Your task to perform on an android device: toggle translation in the chrome app Image 0: 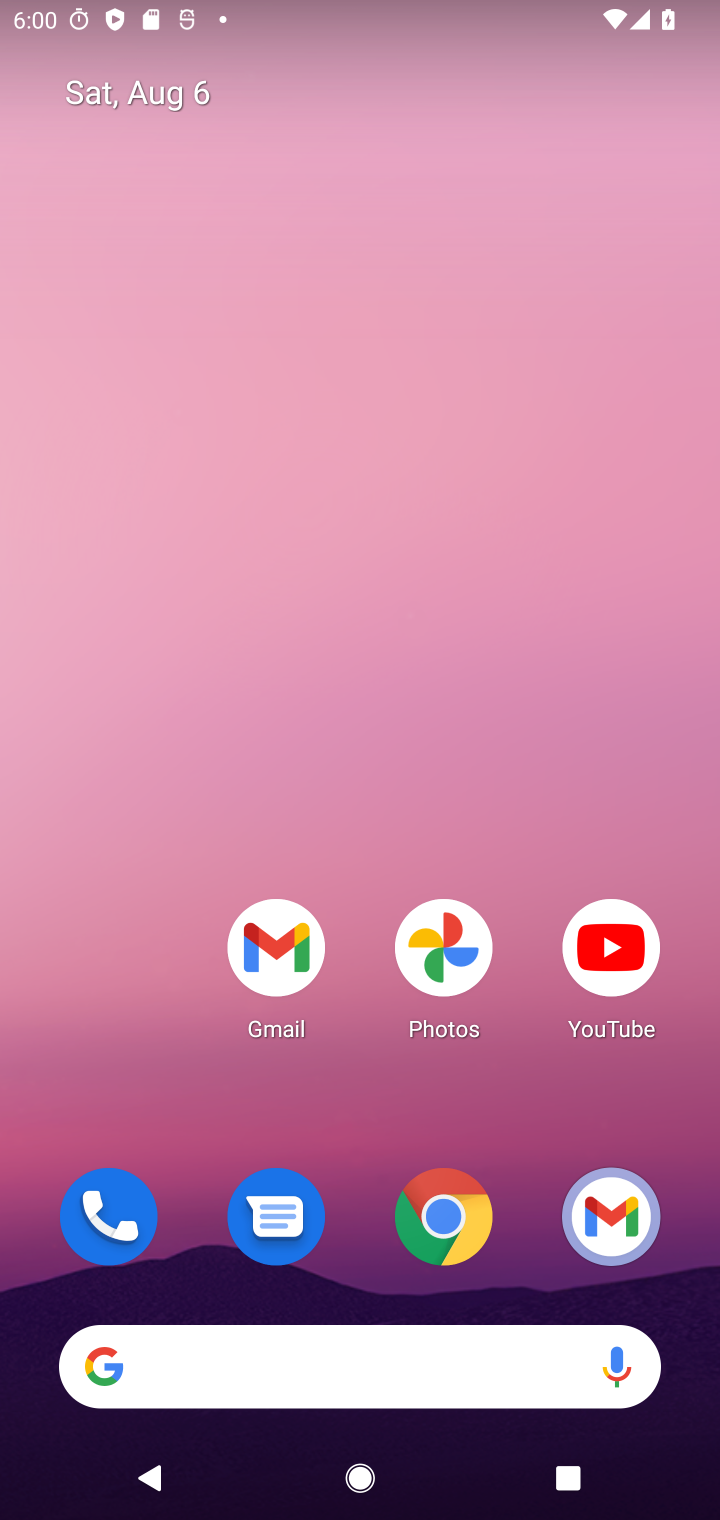
Step 0: drag from (538, 1129) to (495, 10)
Your task to perform on an android device: toggle translation in the chrome app Image 1: 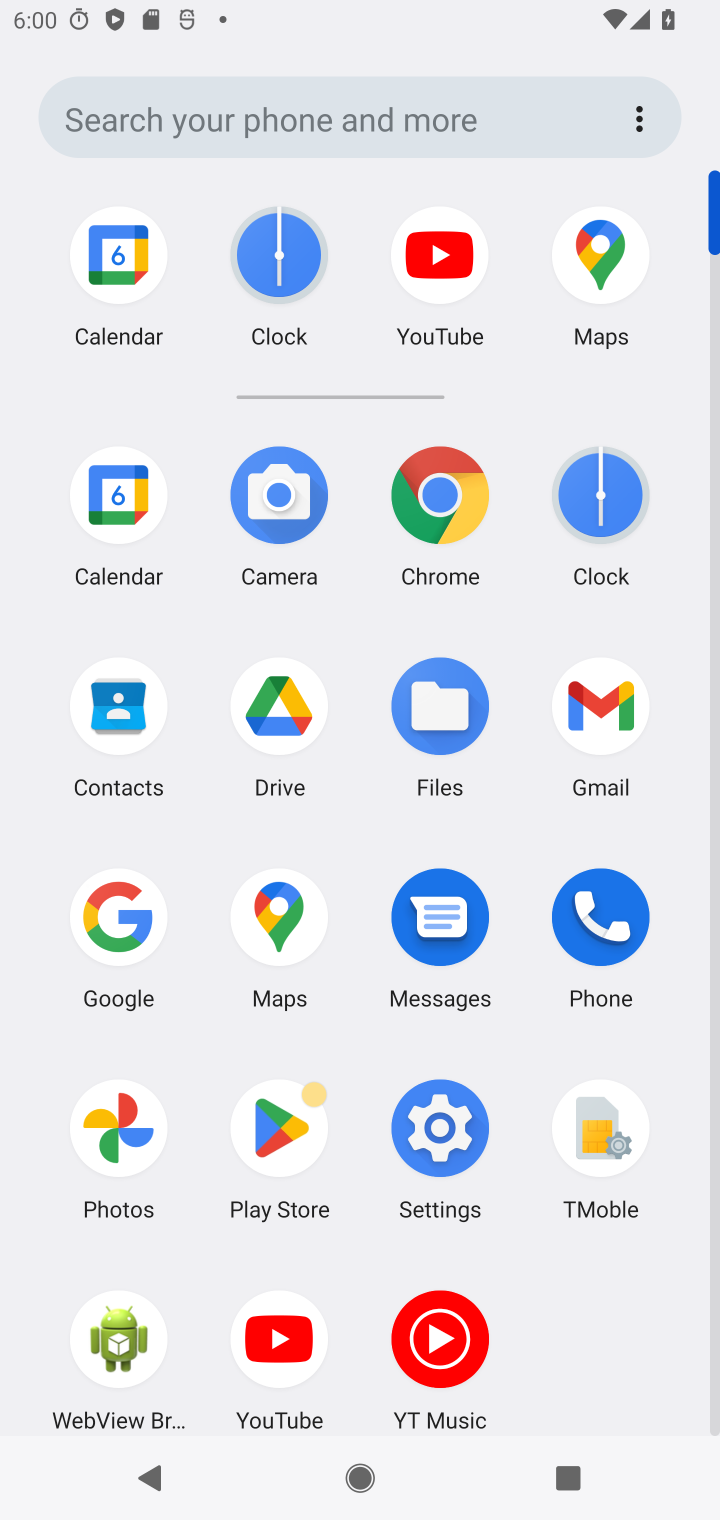
Step 1: click (434, 498)
Your task to perform on an android device: toggle translation in the chrome app Image 2: 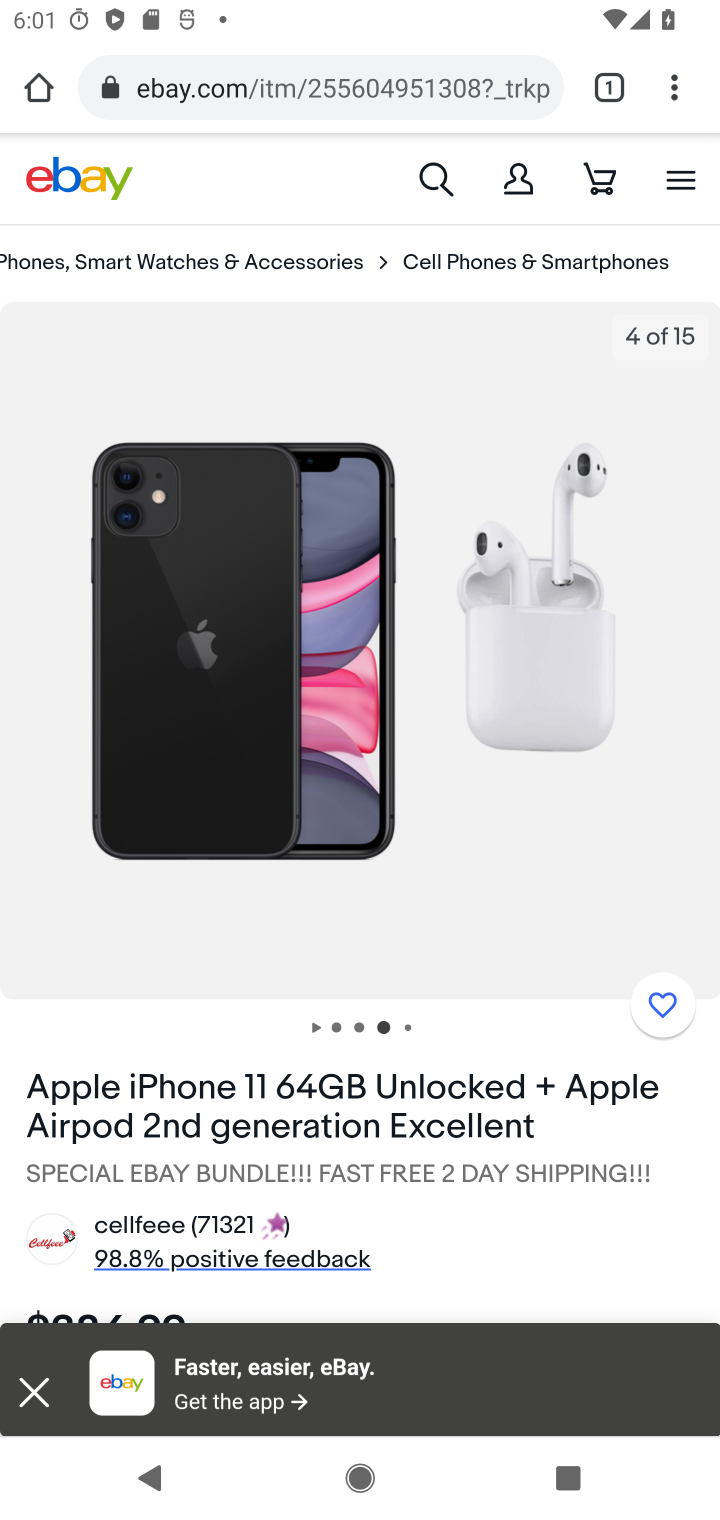
Step 2: drag from (685, 71) to (432, 1096)
Your task to perform on an android device: toggle translation in the chrome app Image 3: 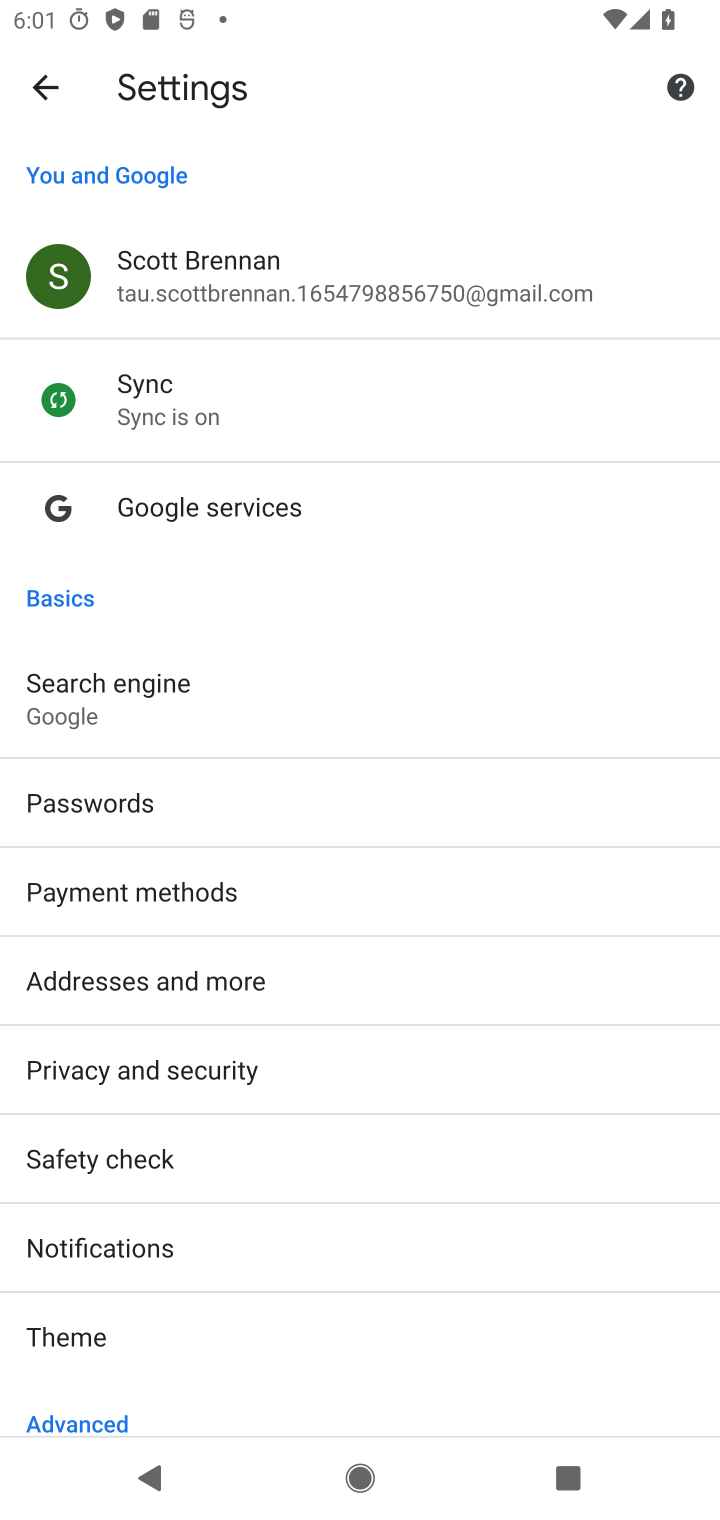
Step 3: drag from (499, 1105) to (523, 457)
Your task to perform on an android device: toggle translation in the chrome app Image 4: 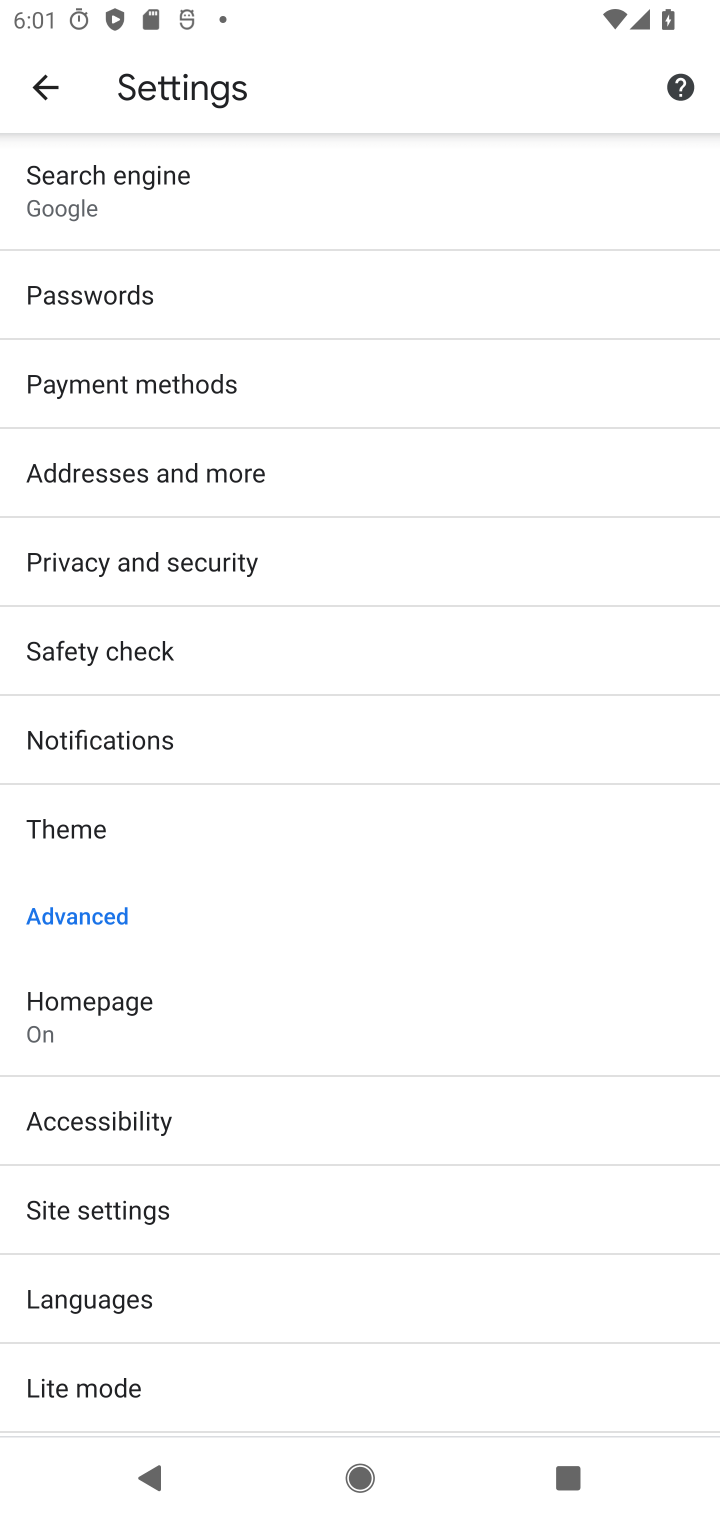
Step 4: click (110, 1299)
Your task to perform on an android device: toggle translation in the chrome app Image 5: 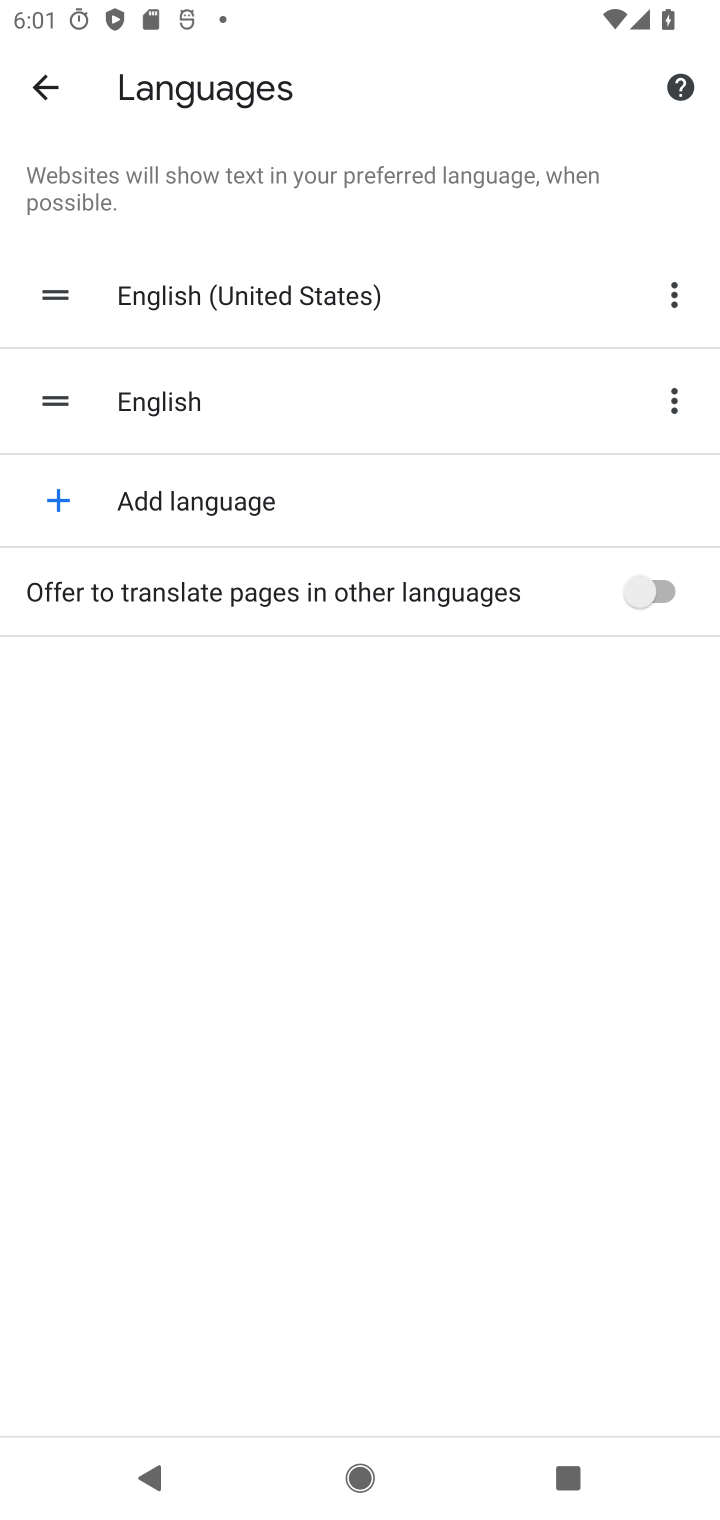
Step 5: click (660, 580)
Your task to perform on an android device: toggle translation in the chrome app Image 6: 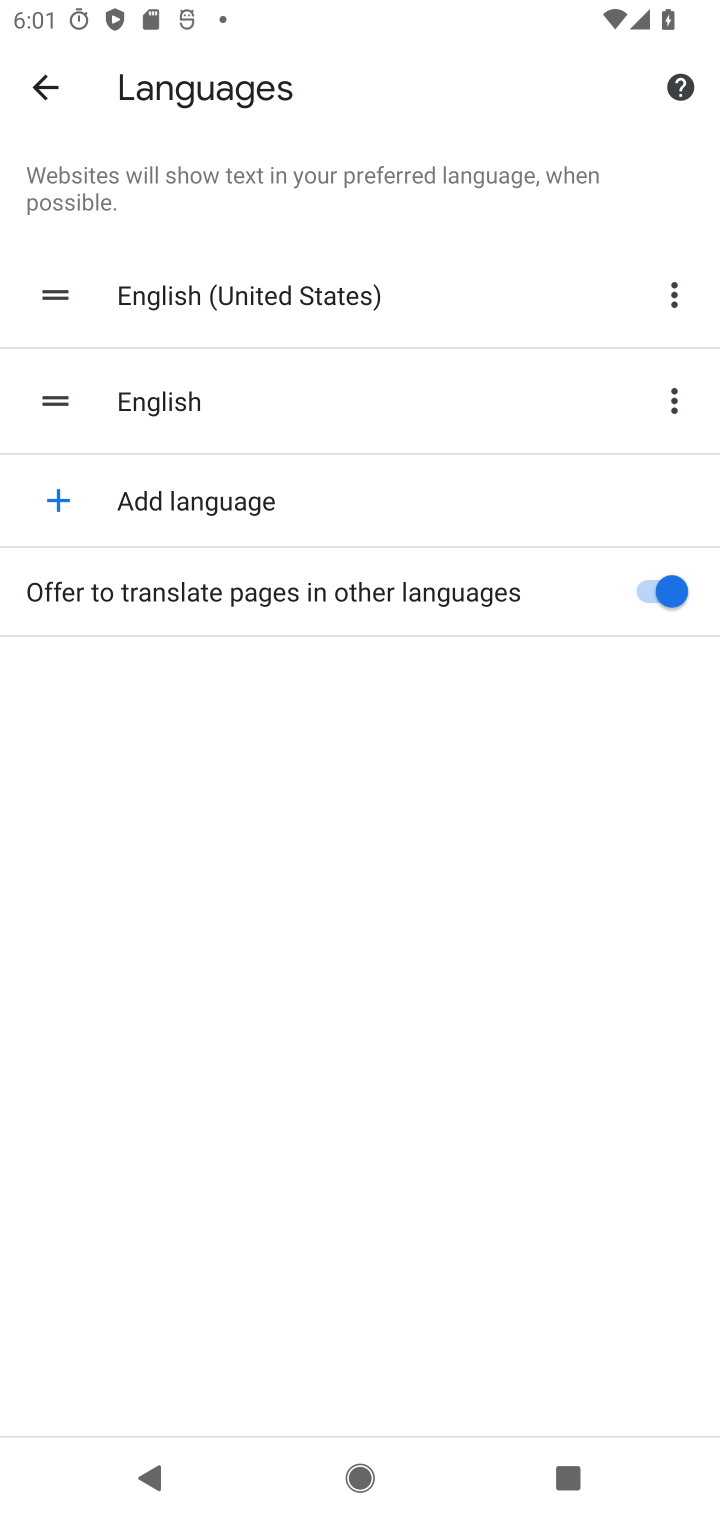
Step 6: task complete